Your task to perform on an android device: Open Chrome and go to settings Image 0: 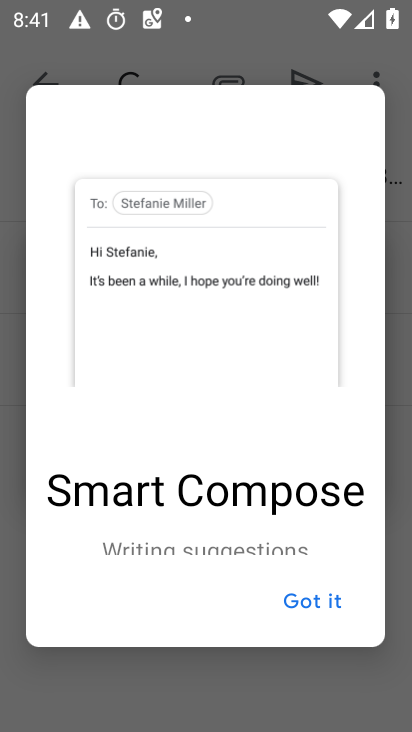
Step 0: press home button
Your task to perform on an android device: Open Chrome and go to settings Image 1: 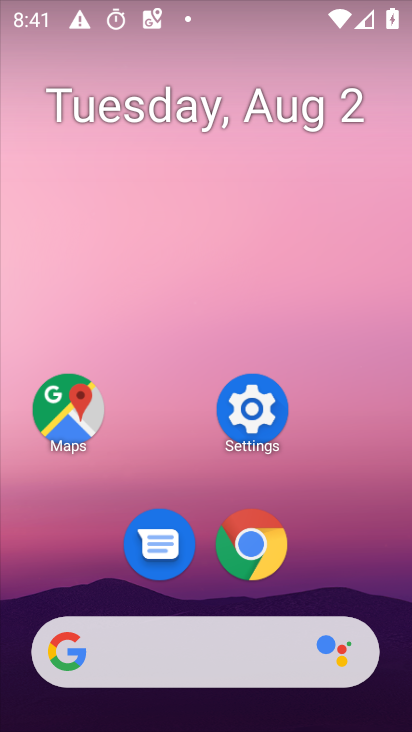
Step 1: click (263, 541)
Your task to perform on an android device: Open Chrome and go to settings Image 2: 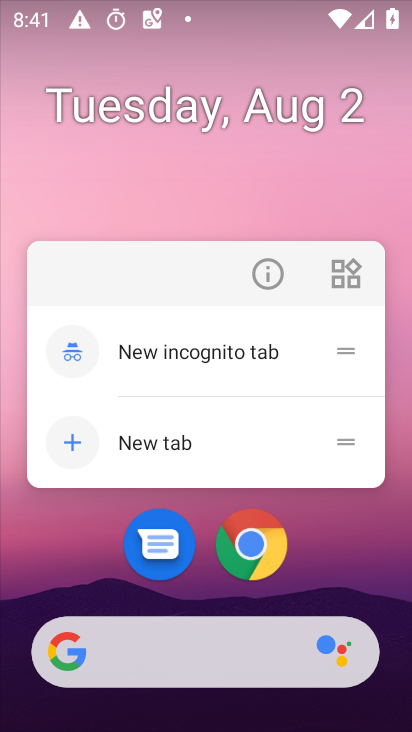
Step 2: click (263, 541)
Your task to perform on an android device: Open Chrome and go to settings Image 3: 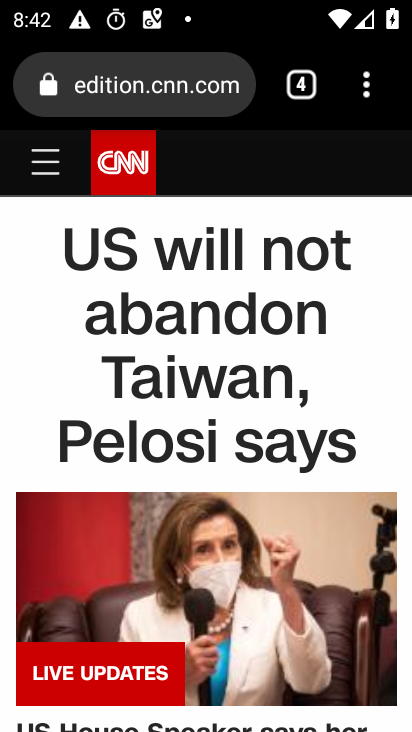
Step 3: task complete